Your task to perform on an android device: Open Maps and search for coffee Image 0: 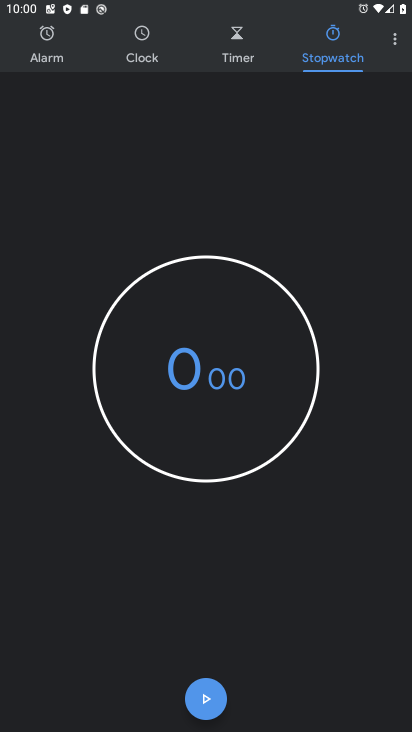
Step 0: press home button
Your task to perform on an android device: Open Maps and search for coffee Image 1: 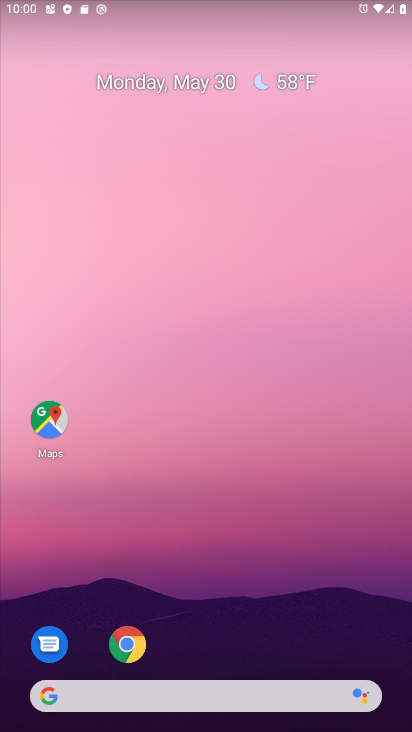
Step 1: click (51, 423)
Your task to perform on an android device: Open Maps and search for coffee Image 2: 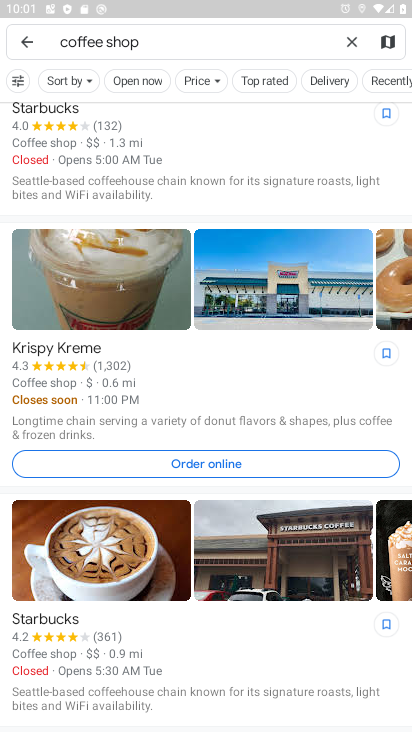
Step 2: task complete